Your task to perform on an android device: Open Google Chrome and click the shortcut for Amazon.com Image 0: 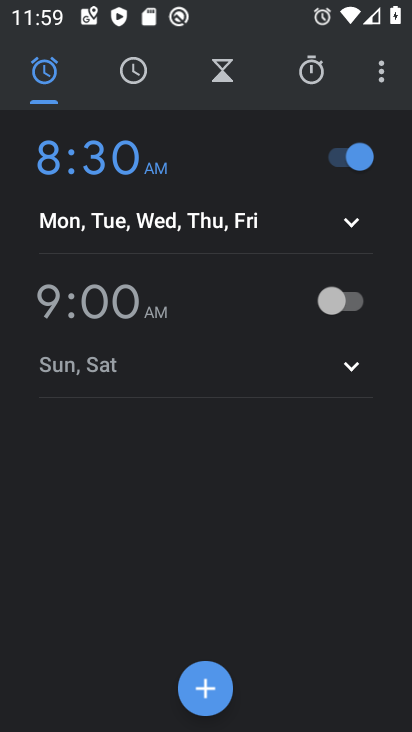
Step 0: press home button
Your task to perform on an android device: Open Google Chrome and click the shortcut for Amazon.com Image 1: 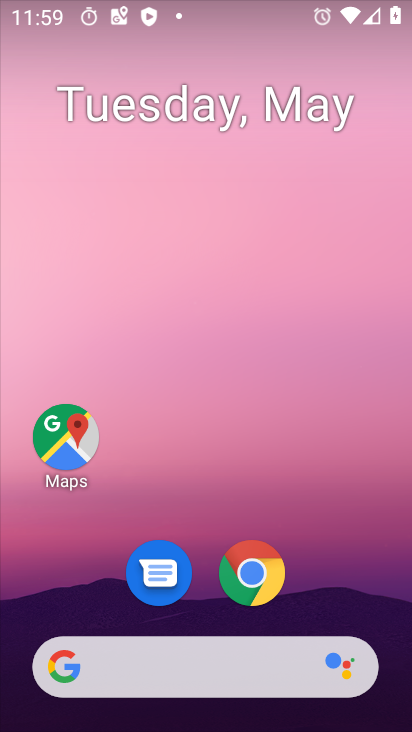
Step 1: drag from (208, 690) to (321, 292)
Your task to perform on an android device: Open Google Chrome and click the shortcut for Amazon.com Image 2: 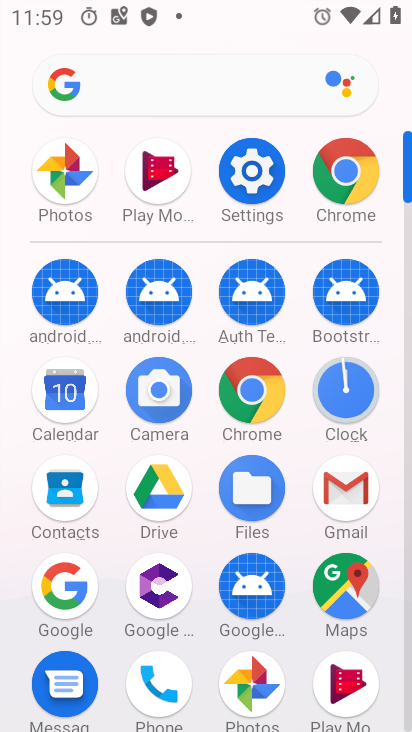
Step 2: click (325, 189)
Your task to perform on an android device: Open Google Chrome and click the shortcut for Amazon.com Image 3: 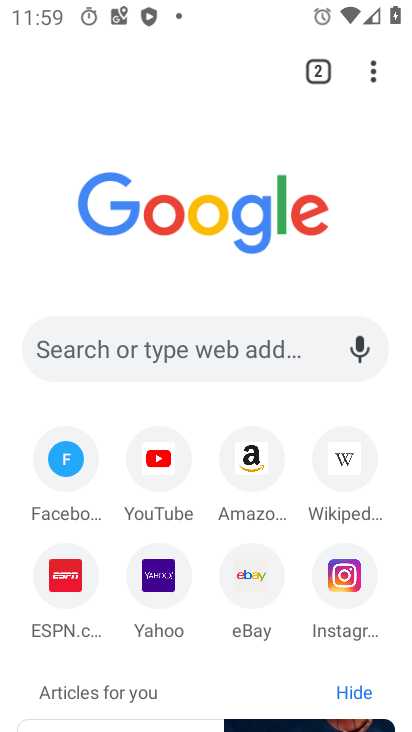
Step 3: click (253, 461)
Your task to perform on an android device: Open Google Chrome and click the shortcut for Amazon.com Image 4: 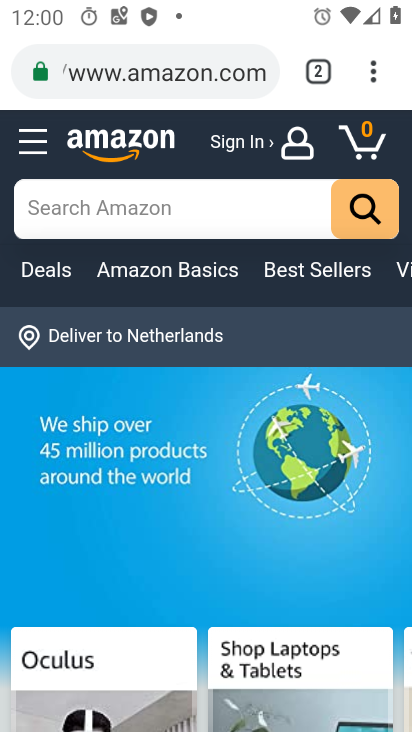
Step 4: click (375, 79)
Your task to perform on an android device: Open Google Chrome and click the shortcut for Amazon.com Image 5: 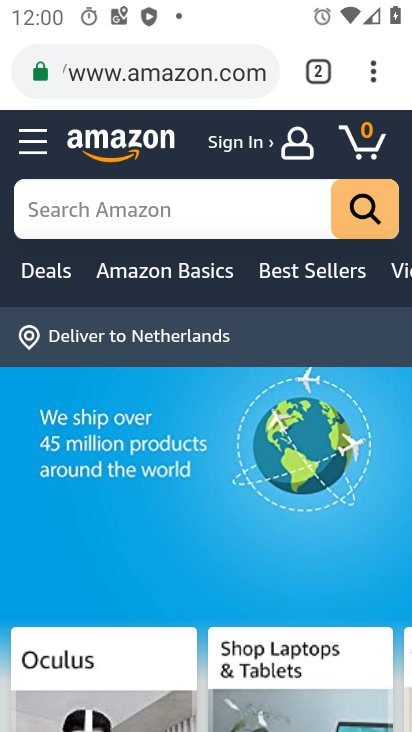
Step 5: click (370, 96)
Your task to perform on an android device: Open Google Chrome and click the shortcut for Amazon.com Image 6: 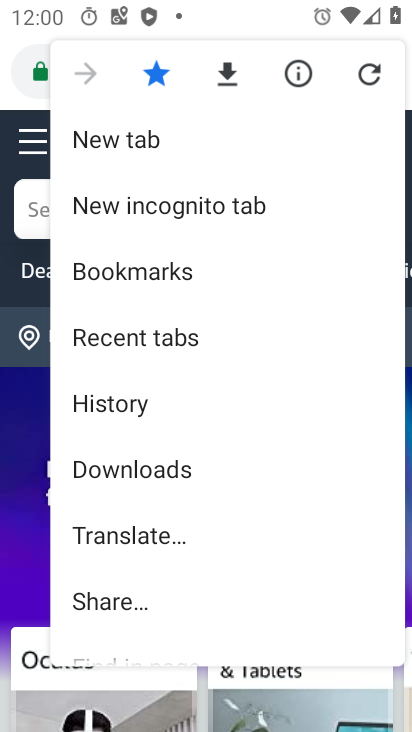
Step 6: drag from (30, 562) to (198, 367)
Your task to perform on an android device: Open Google Chrome and click the shortcut for Amazon.com Image 7: 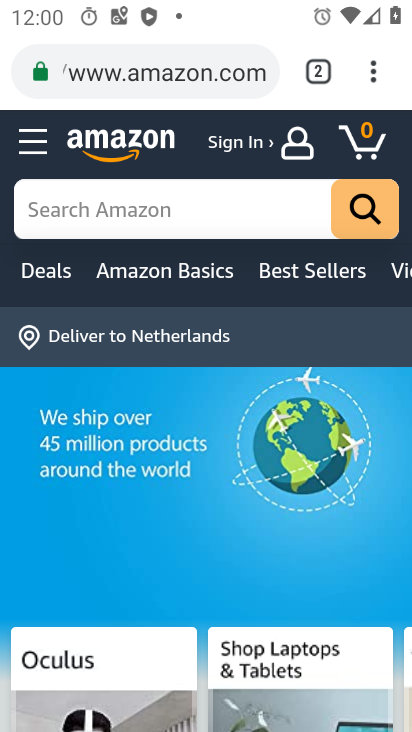
Step 7: click (372, 90)
Your task to perform on an android device: Open Google Chrome and click the shortcut for Amazon.com Image 8: 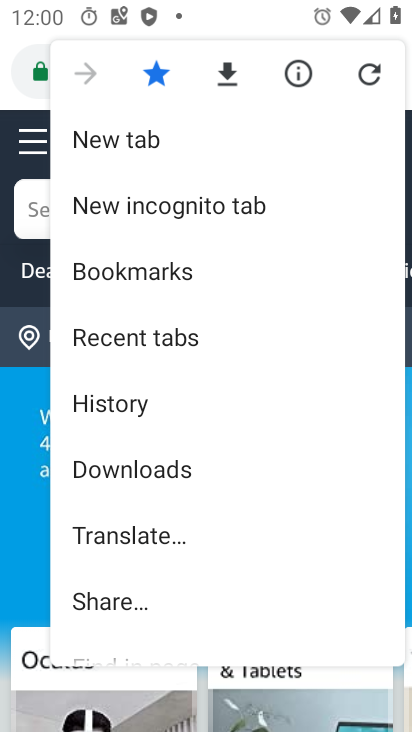
Step 8: drag from (185, 563) to (261, 382)
Your task to perform on an android device: Open Google Chrome and click the shortcut for Amazon.com Image 9: 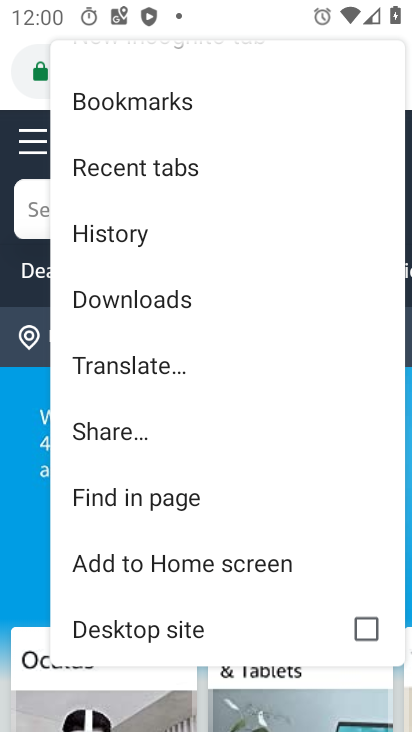
Step 9: click (149, 576)
Your task to perform on an android device: Open Google Chrome and click the shortcut for Amazon.com Image 10: 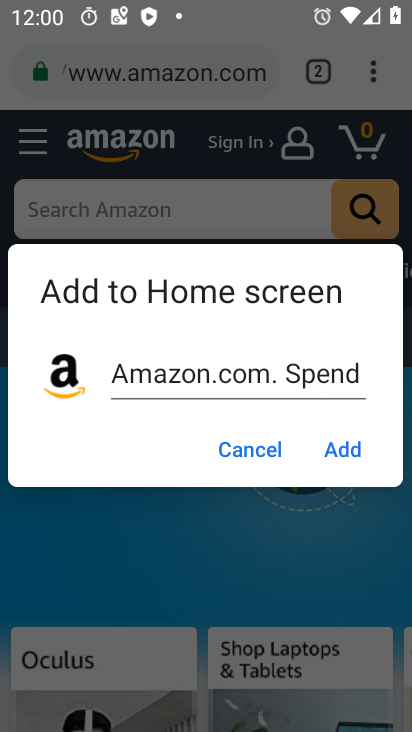
Step 10: click (334, 454)
Your task to perform on an android device: Open Google Chrome and click the shortcut for Amazon.com Image 11: 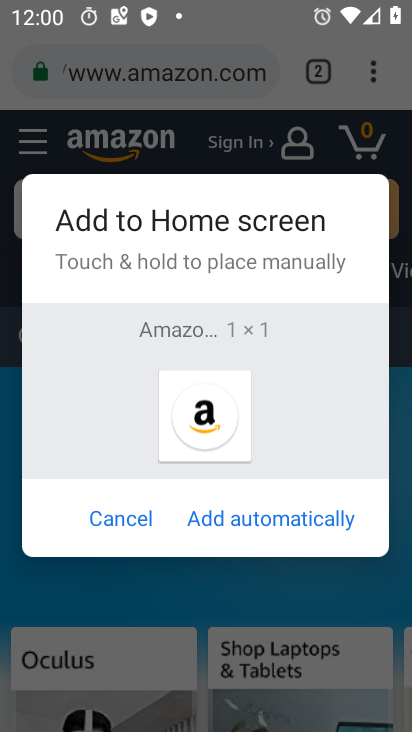
Step 11: click (303, 520)
Your task to perform on an android device: Open Google Chrome and click the shortcut for Amazon.com Image 12: 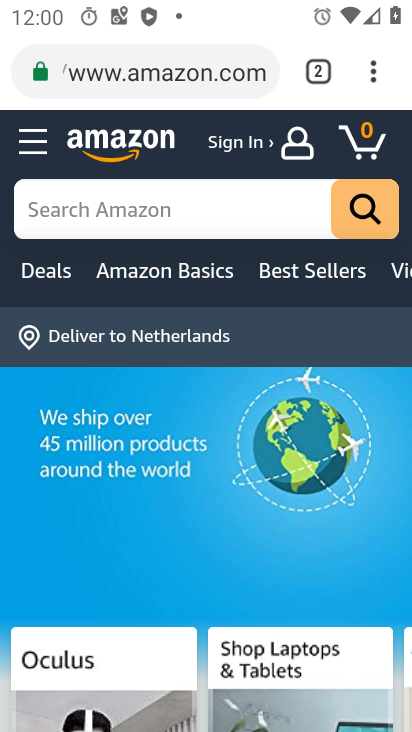
Step 12: task complete